Your task to perform on an android device: Go to Google Image 0: 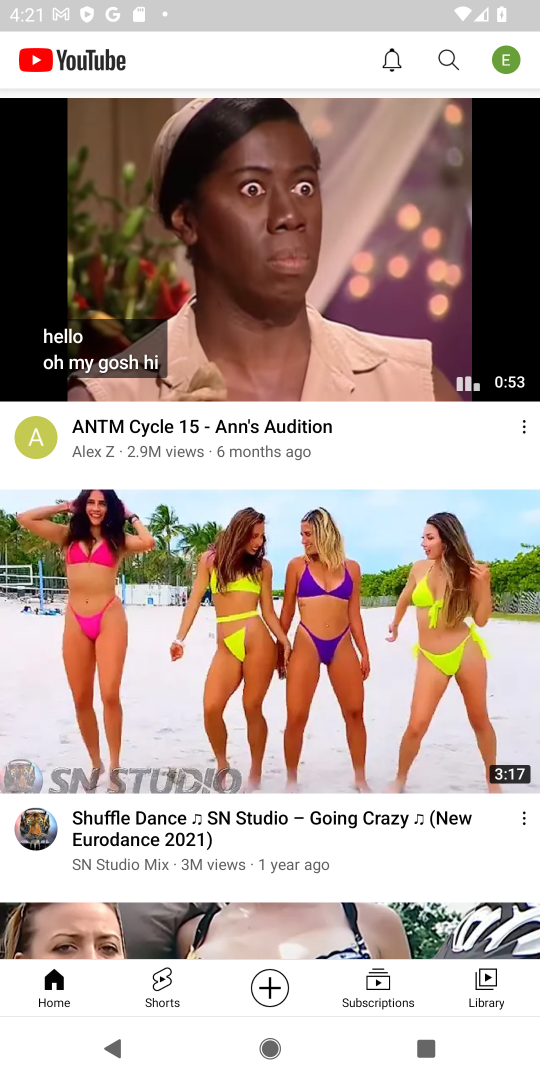
Step 0: press home button
Your task to perform on an android device: Go to Google Image 1: 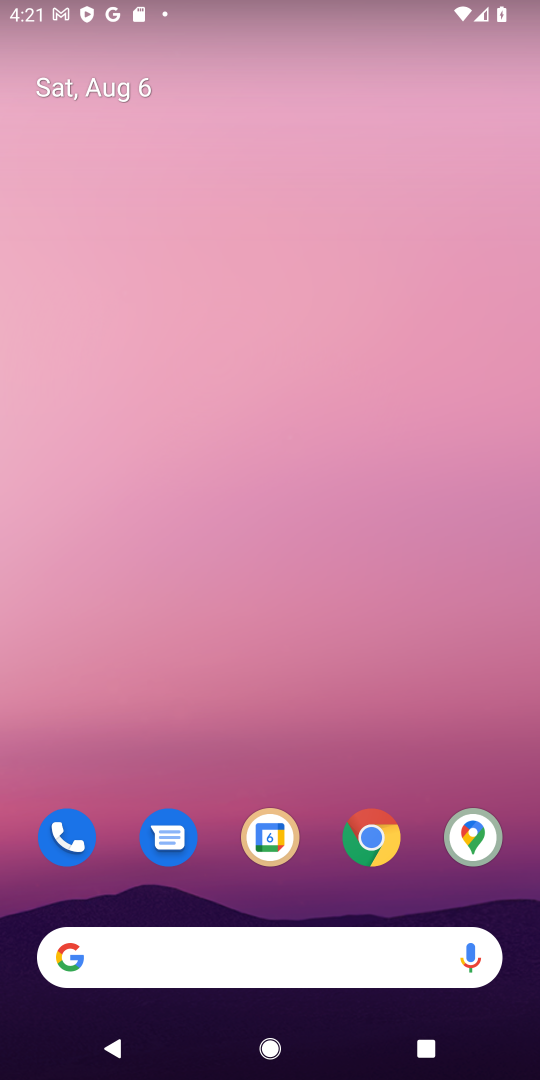
Step 1: click (368, 842)
Your task to perform on an android device: Go to Google Image 2: 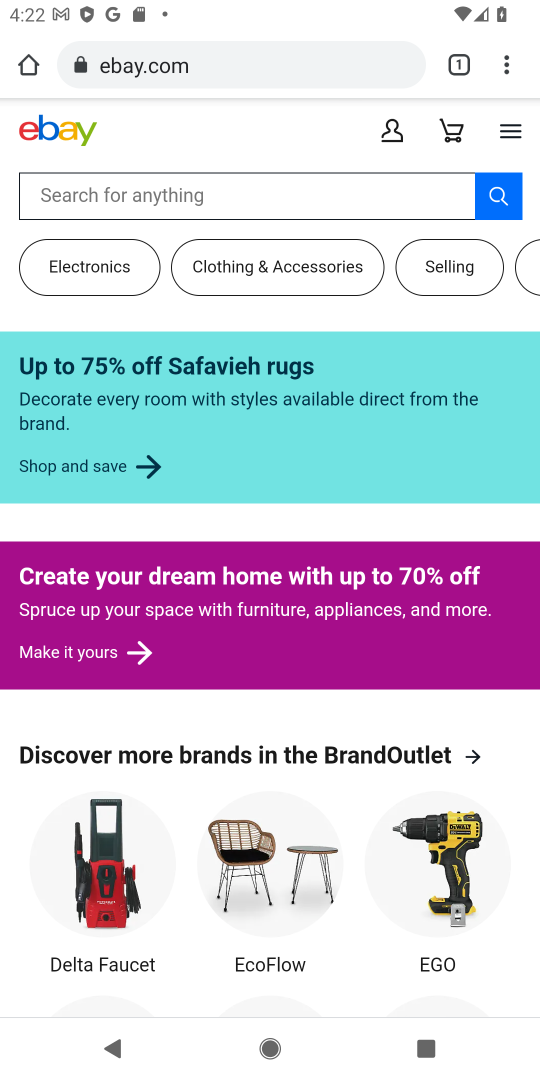
Step 2: click (329, 518)
Your task to perform on an android device: Go to Google Image 3: 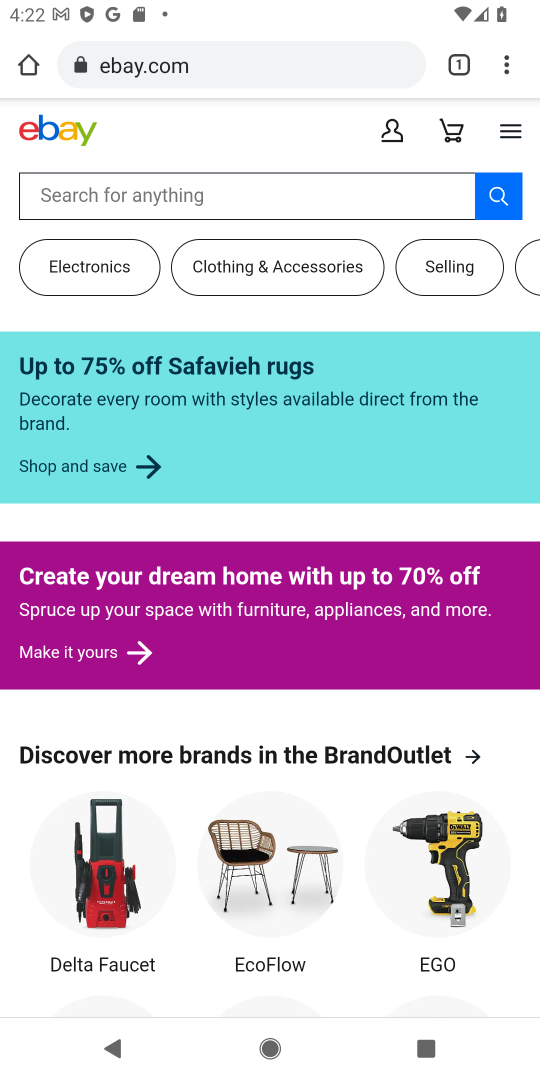
Step 3: task complete